Your task to perform on an android device: set the timer Image 0: 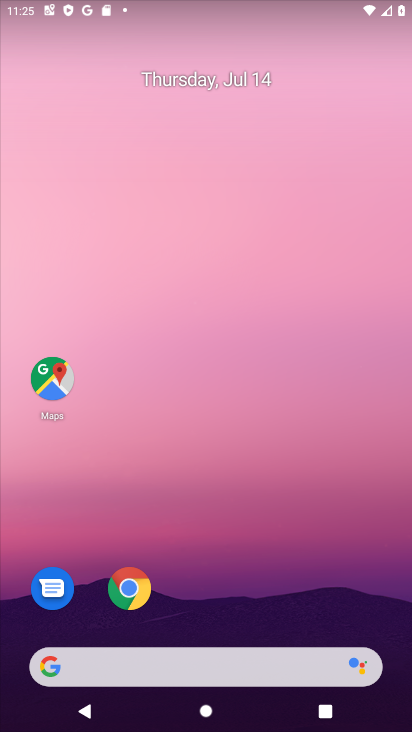
Step 0: drag from (214, 589) to (239, 117)
Your task to perform on an android device: set the timer Image 1: 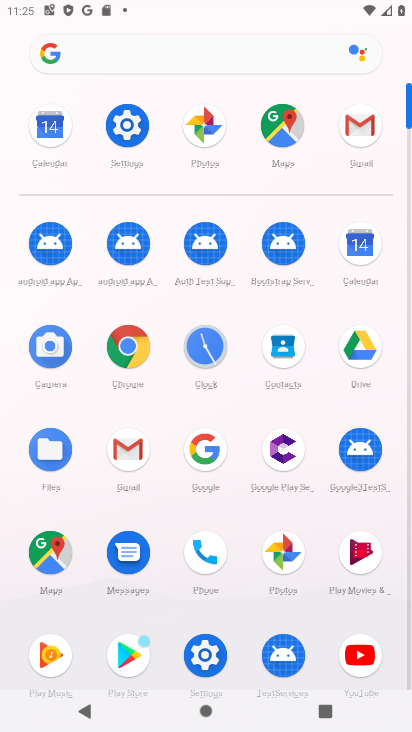
Step 1: click (206, 344)
Your task to perform on an android device: set the timer Image 2: 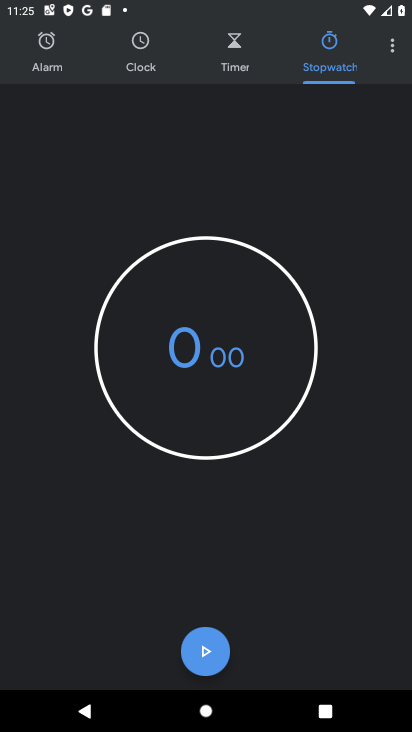
Step 2: click (239, 60)
Your task to perform on an android device: set the timer Image 3: 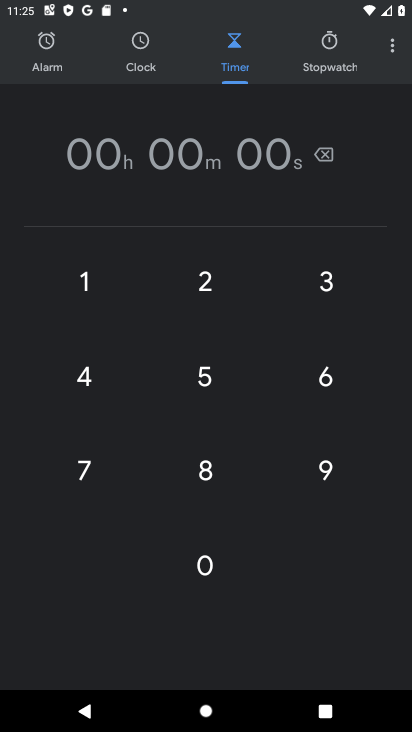
Step 3: click (83, 378)
Your task to perform on an android device: set the timer Image 4: 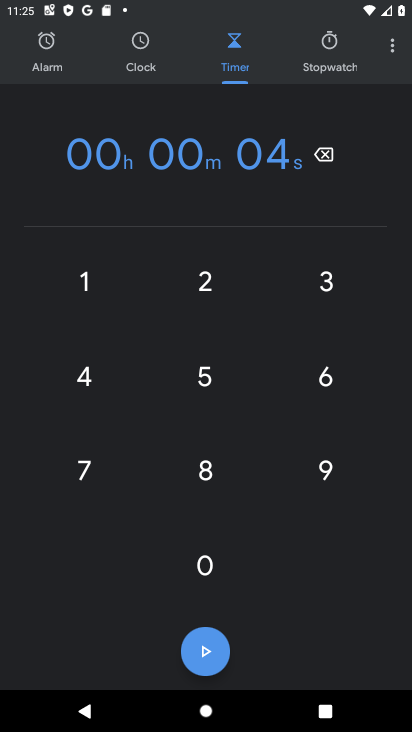
Step 4: click (198, 370)
Your task to perform on an android device: set the timer Image 5: 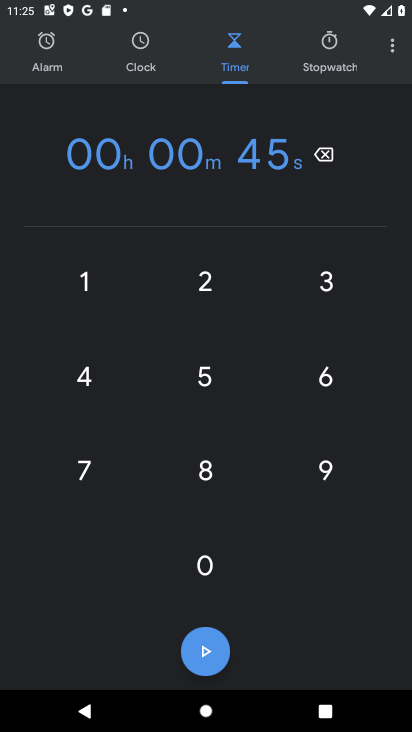
Step 5: click (198, 650)
Your task to perform on an android device: set the timer Image 6: 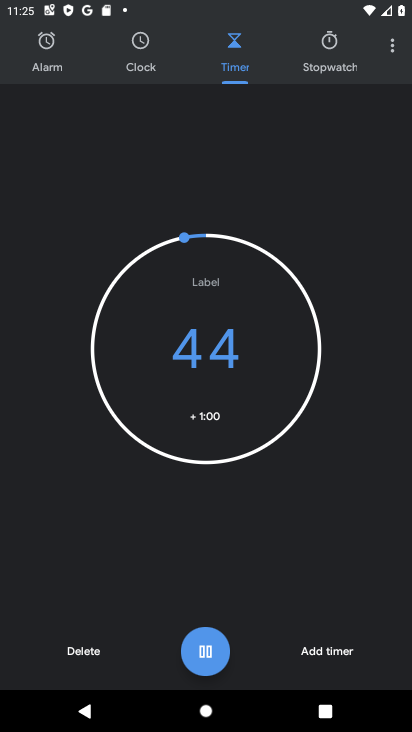
Step 6: click (198, 650)
Your task to perform on an android device: set the timer Image 7: 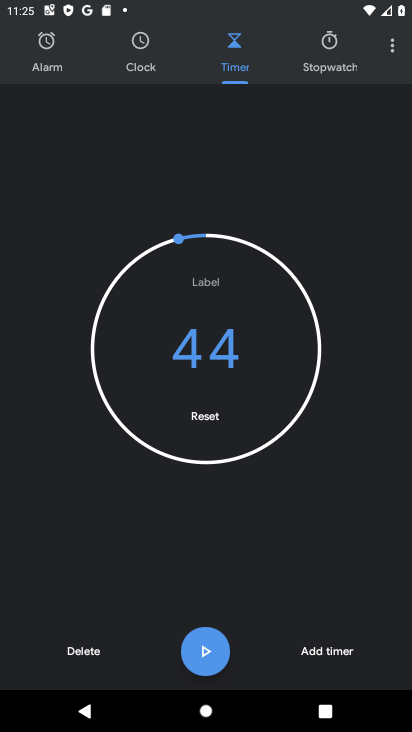
Step 7: task complete